Your task to perform on an android device: toggle show notifications on the lock screen Image 0: 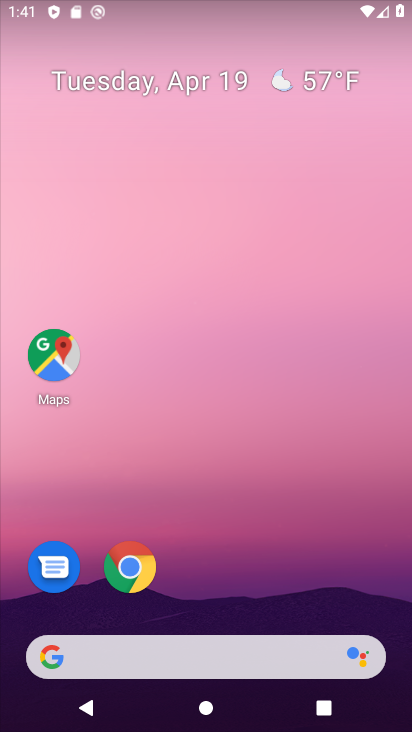
Step 0: drag from (235, 598) to (393, 264)
Your task to perform on an android device: toggle show notifications on the lock screen Image 1: 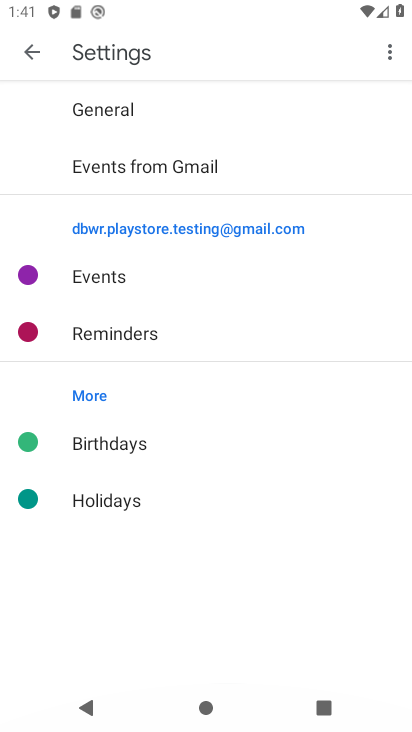
Step 1: press home button
Your task to perform on an android device: toggle show notifications on the lock screen Image 2: 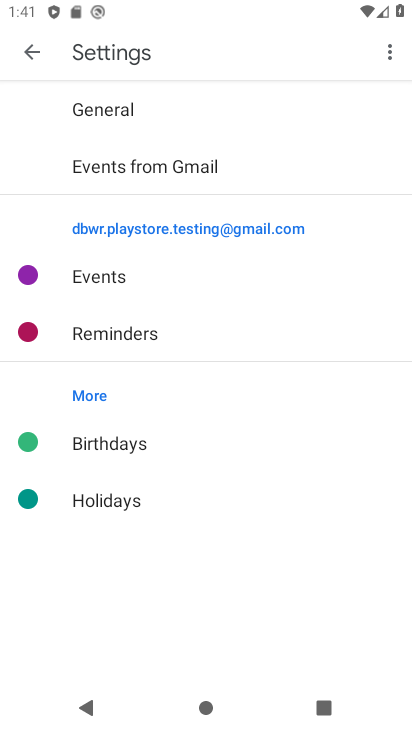
Step 2: drag from (393, 264) to (411, 432)
Your task to perform on an android device: toggle show notifications on the lock screen Image 3: 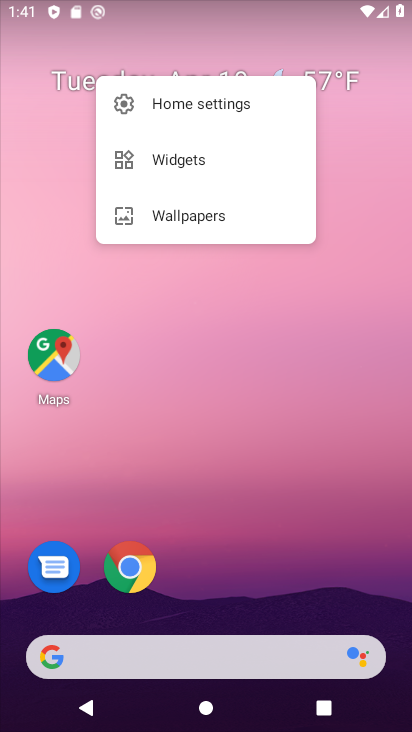
Step 3: drag from (222, 572) to (210, 307)
Your task to perform on an android device: toggle show notifications on the lock screen Image 4: 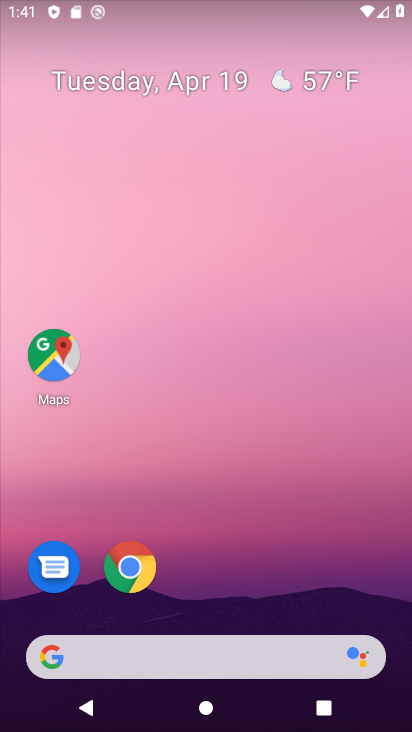
Step 4: drag from (192, 542) to (154, 232)
Your task to perform on an android device: toggle show notifications on the lock screen Image 5: 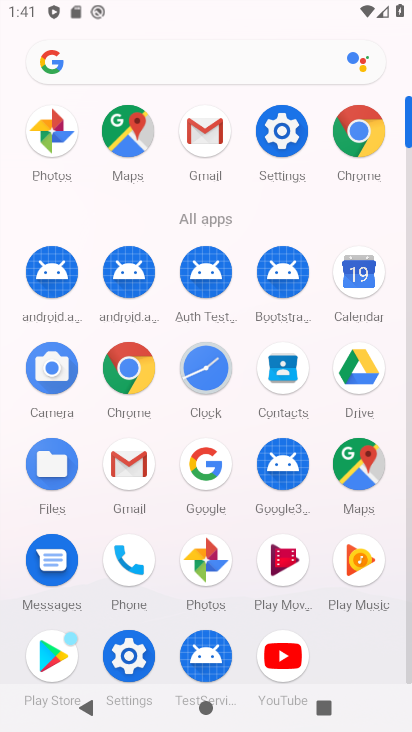
Step 5: click (282, 125)
Your task to perform on an android device: toggle show notifications on the lock screen Image 6: 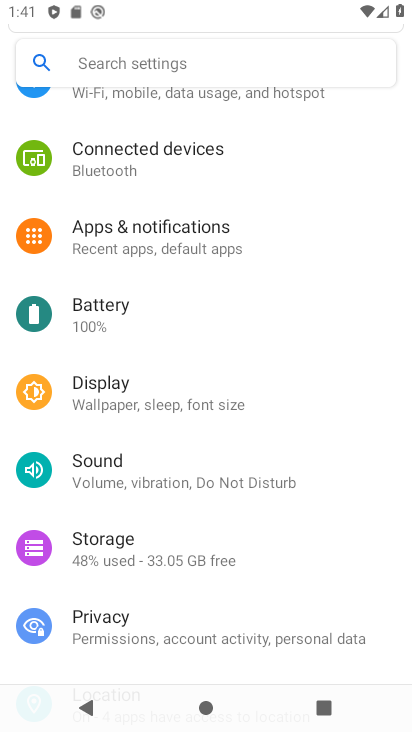
Step 6: click (153, 239)
Your task to perform on an android device: toggle show notifications on the lock screen Image 7: 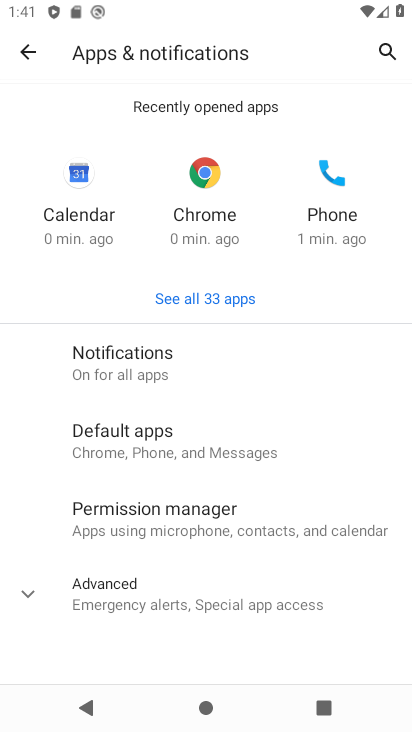
Step 7: click (167, 369)
Your task to perform on an android device: toggle show notifications on the lock screen Image 8: 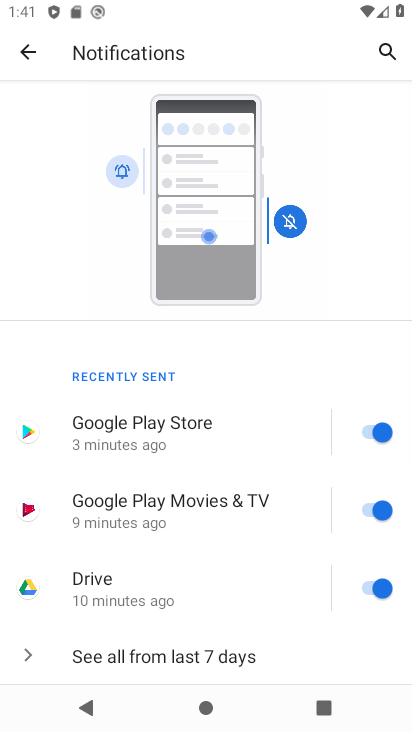
Step 8: drag from (221, 572) to (270, 122)
Your task to perform on an android device: toggle show notifications on the lock screen Image 9: 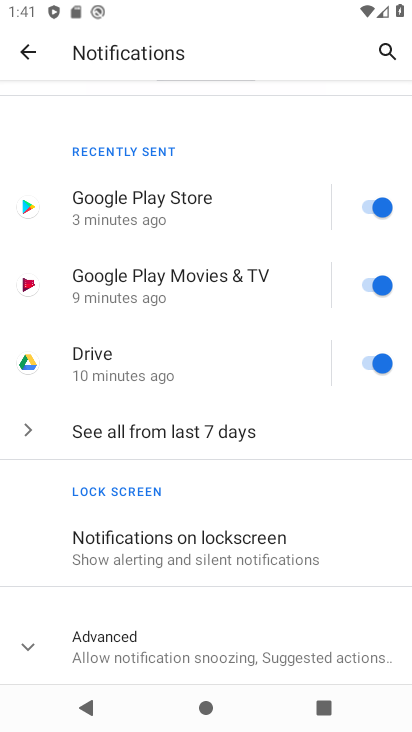
Step 9: click (159, 541)
Your task to perform on an android device: toggle show notifications on the lock screen Image 10: 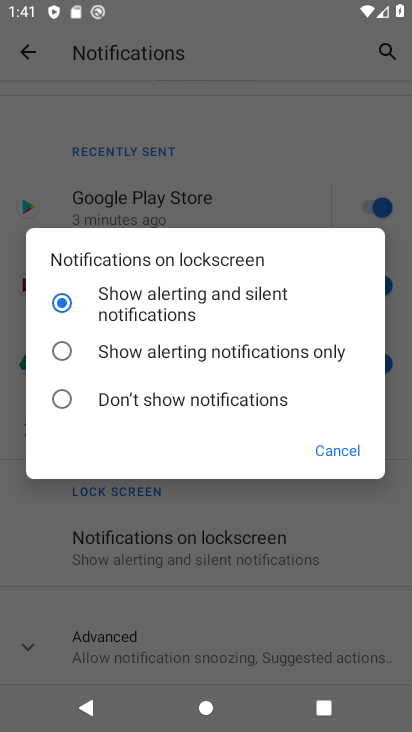
Step 10: click (57, 391)
Your task to perform on an android device: toggle show notifications on the lock screen Image 11: 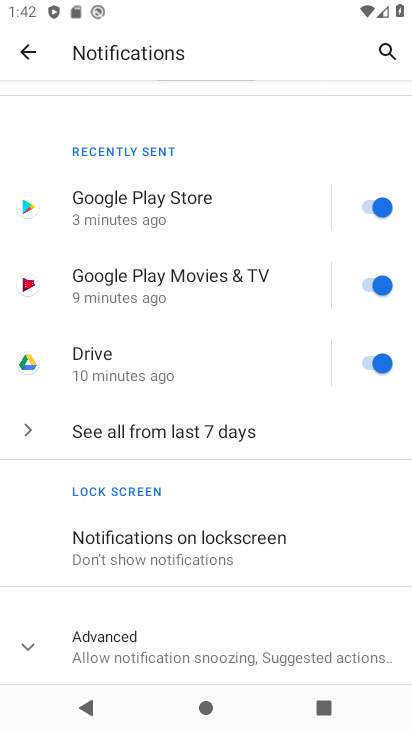
Step 11: task complete